Your task to perform on an android device: manage bookmarks in the chrome app Image 0: 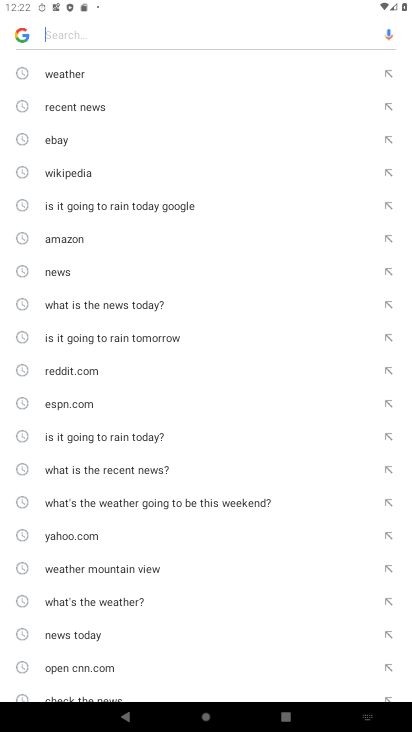
Step 0: press home button
Your task to perform on an android device: manage bookmarks in the chrome app Image 1: 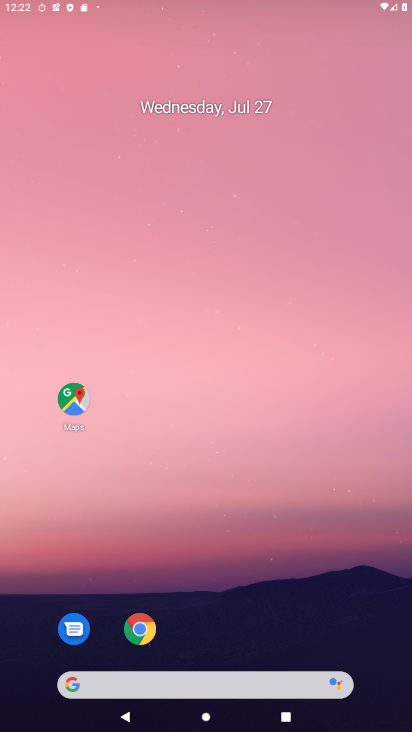
Step 1: drag from (330, 623) to (159, 40)
Your task to perform on an android device: manage bookmarks in the chrome app Image 2: 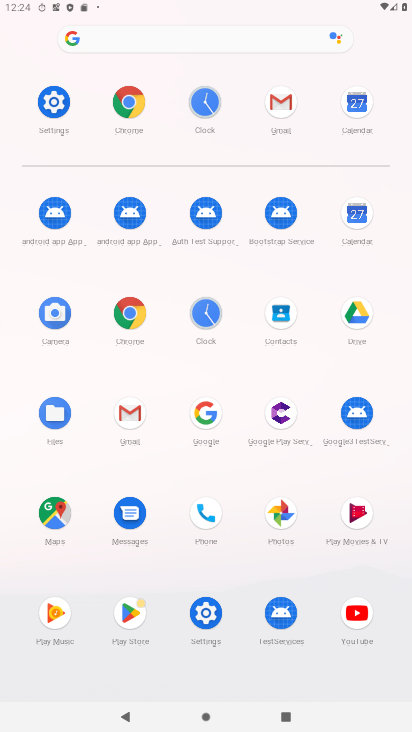
Step 2: click (126, 322)
Your task to perform on an android device: manage bookmarks in the chrome app Image 3: 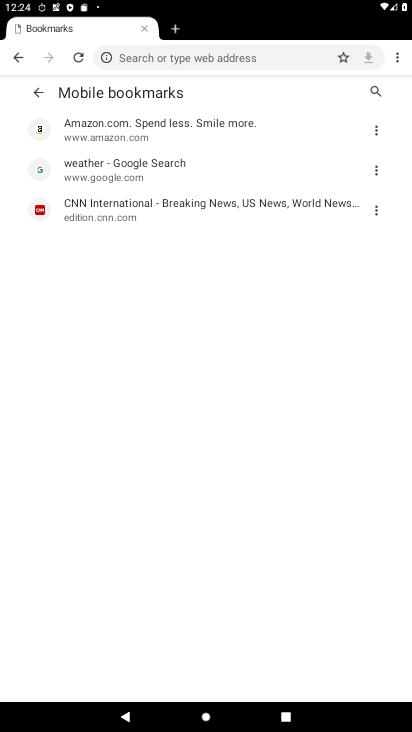
Step 3: task complete